Your task to perform on an android device: Go to display settings Image 0: 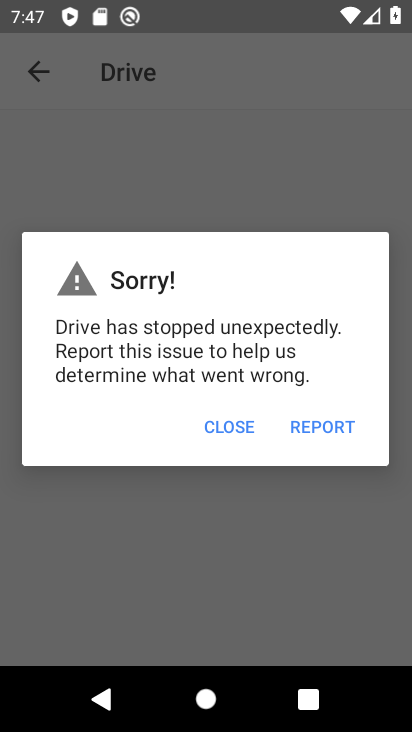
Step 0: press home button
Your task to perform on an android device: Go to display settings Image 1: 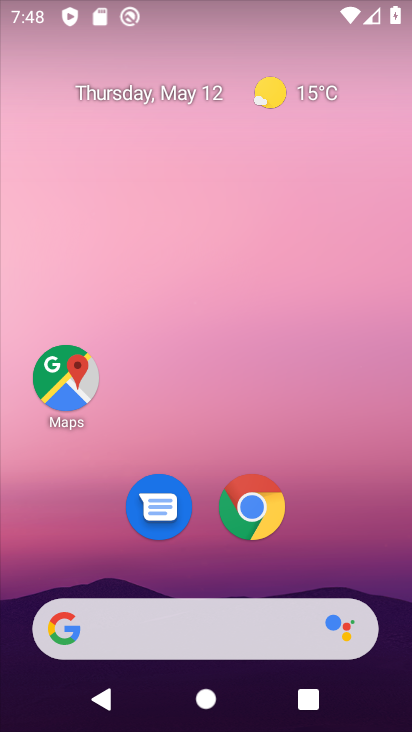
Step 1: drag from (334, 563) to (409, 24)
Your task to perform on an android device: Go to display settings Image 2: 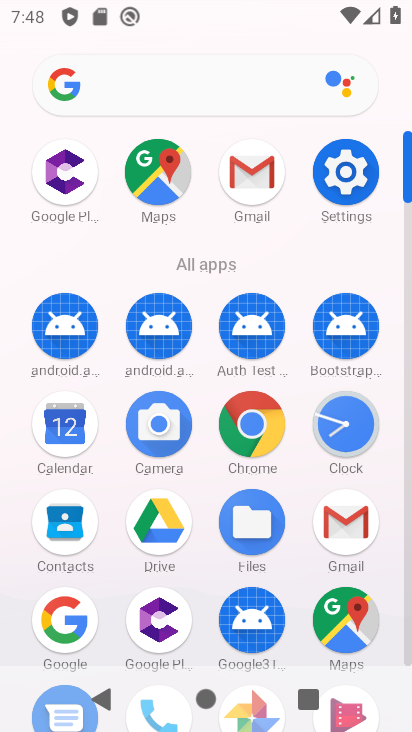
Step 2: click (342, 172)
Your task to perform on an android device: Go to display settings Image 3: 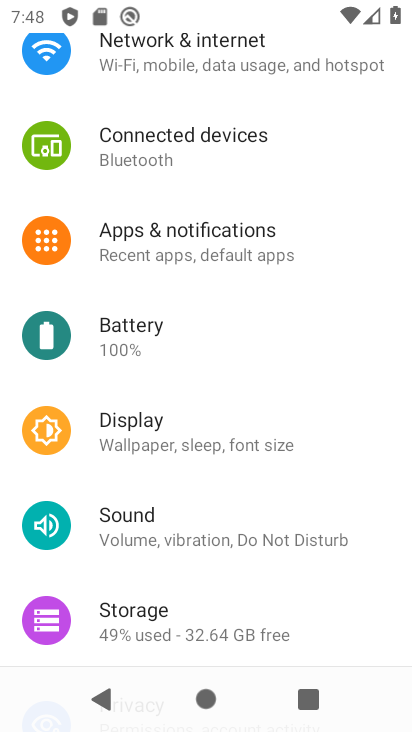
Step 3: click (214, 441)
Your task to perform on an android device: Go to display settings Image 4: 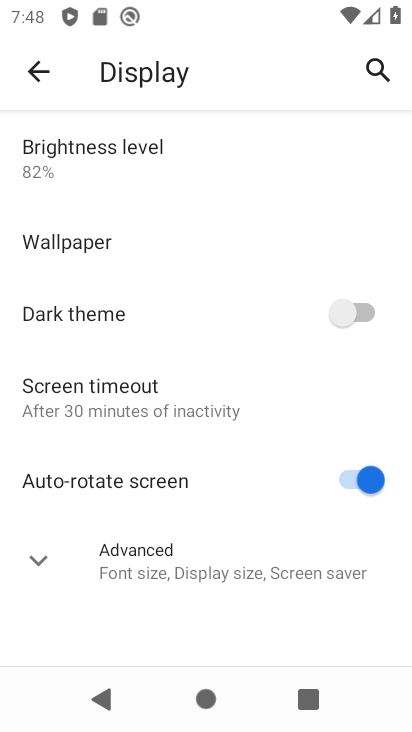
Step 4: task complete